Your task to perform on an android device: turn on sleep mode Image 0: 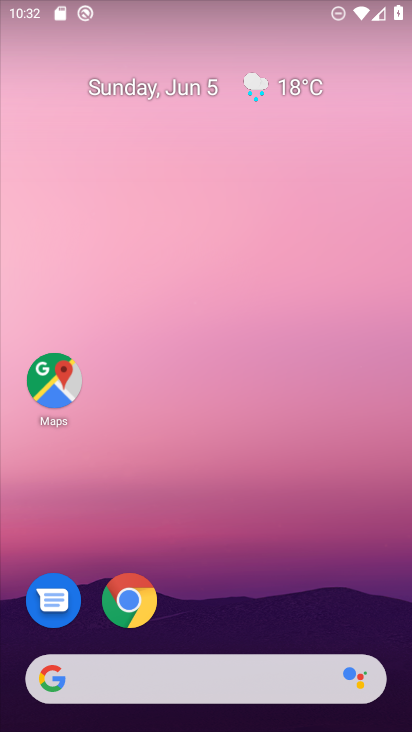
Step 0: drag from (200, 580) to (261, 94)
Your task to perform on an android device: turn on sleep mode Image 1: 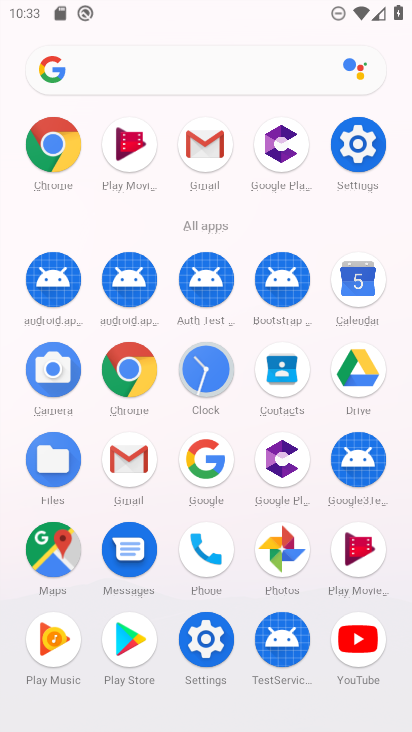
Step 1: click (366, 139)
Your task to perform on an android device: turn on sleep mode Image 2: 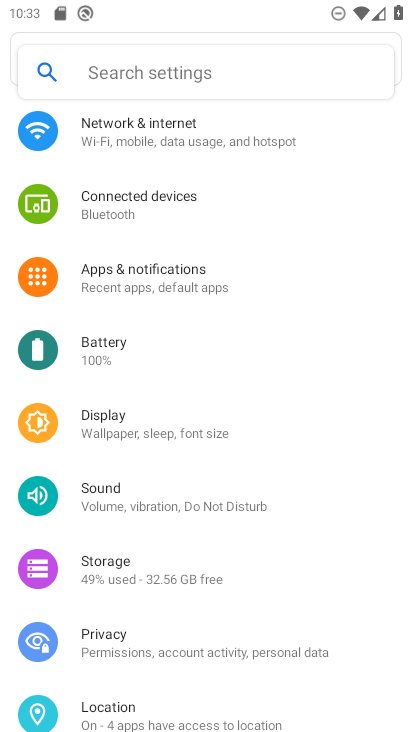
Step 2: click (131, 53)
Your task to perform on an android device: turn on sleep mode Image 3: 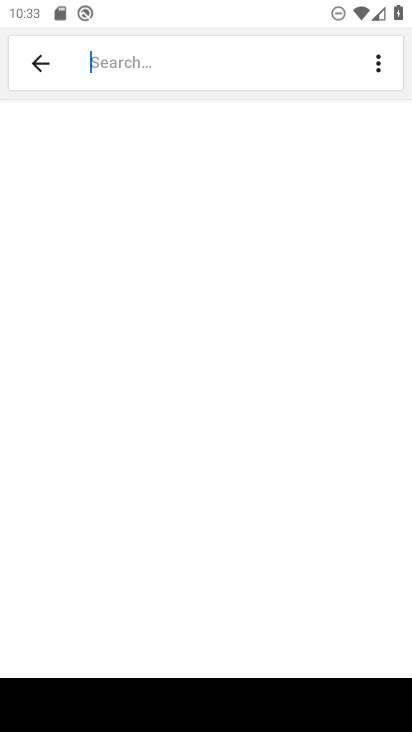
Step 3: type "sleep mode"
Your task to perform on an android device: turn on sleep mode Image 4: 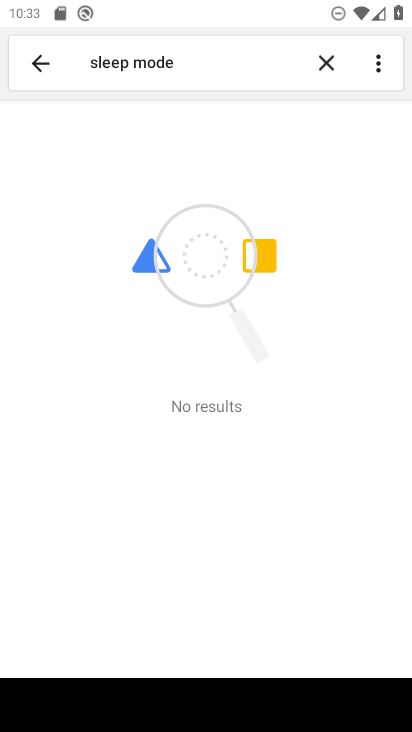
Step 4: task complete